Your task to perform on an android device: change text size in settings app Image 0: 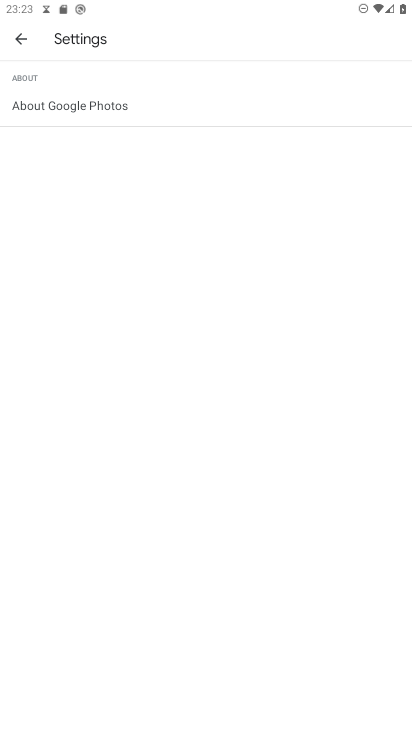
Step 0: press home button
Your task to perform on an android device: change text size in settings app Image 1: 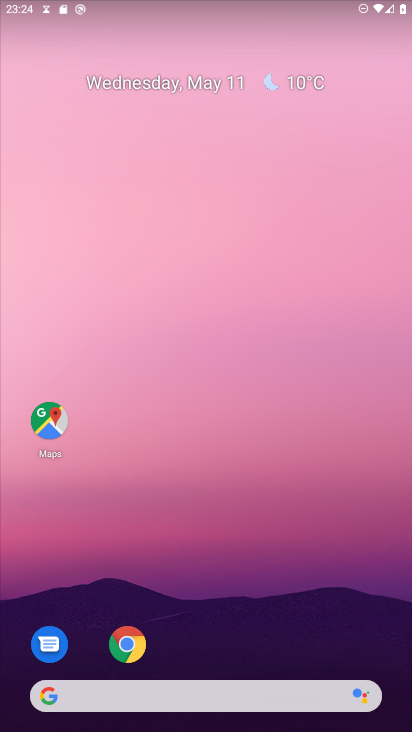
Step 1: drag from (347, 641) to (324, 28)
Your task to perform on an android device: change text size in settings app Image 2: 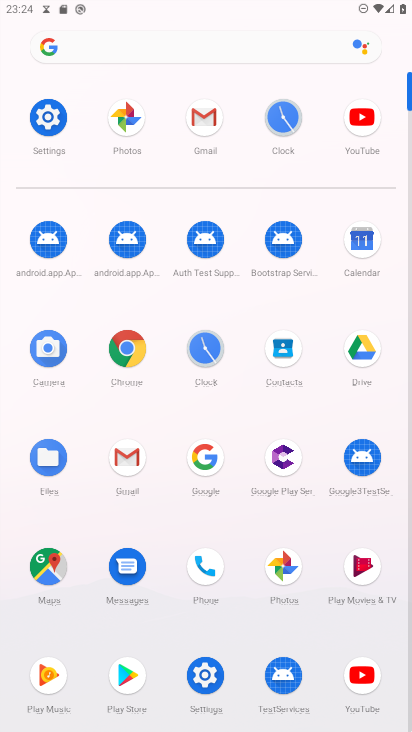
Step 2: click (50, 120)
Your task to perform on an android device: change text size in settings app Image 3: 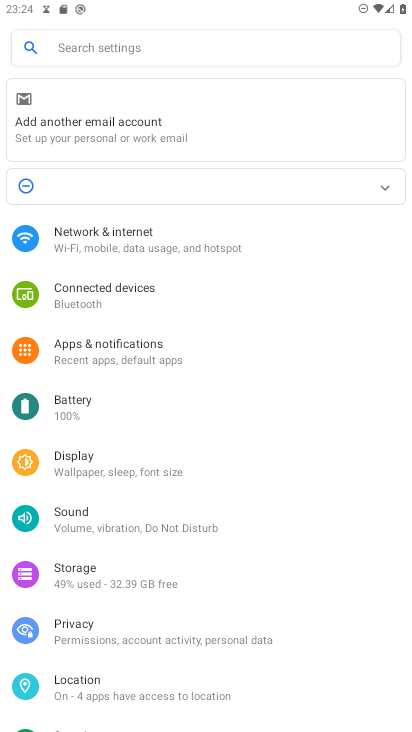
Step 3: click (82, 465)
Your task to perform on an android device: change text size in settings app Image 4: 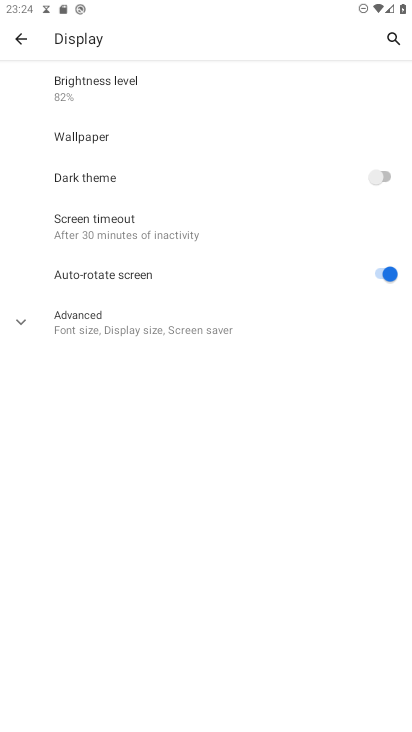
Step 4: click (14, 322)
Your task to perform on an android device: change text size in settings app Image 5: 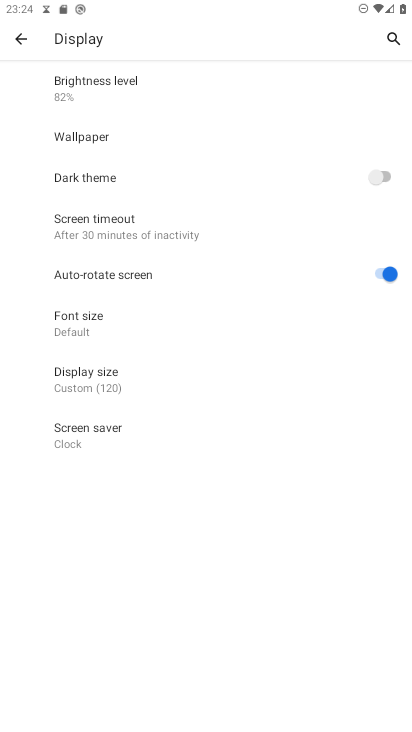
Step 5: click (80, 337)
Your task to perform on an android device: change text size in settings app Image 6: 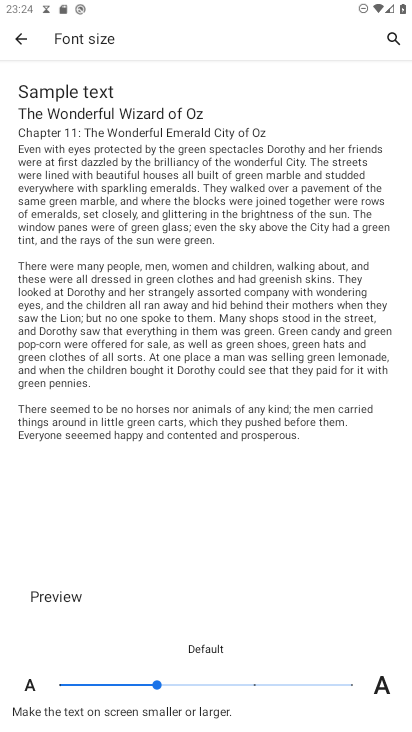
Step 6: click (252, 688)
Your task to perform on an android device: change text size in settings app Image 7: 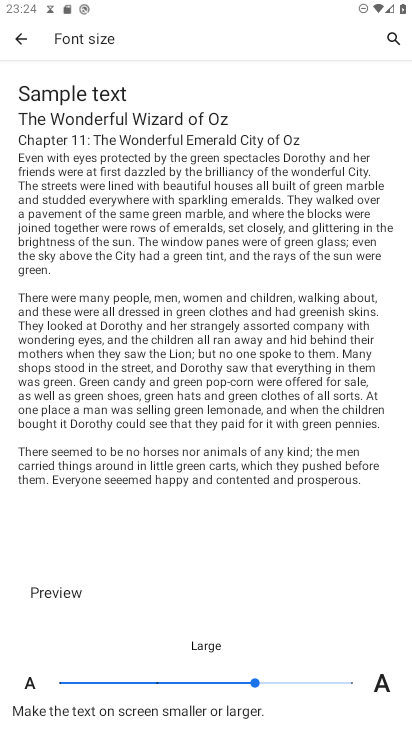
Step 7: task complete